Your task to perform on an android device: Open my contact list Image 0: 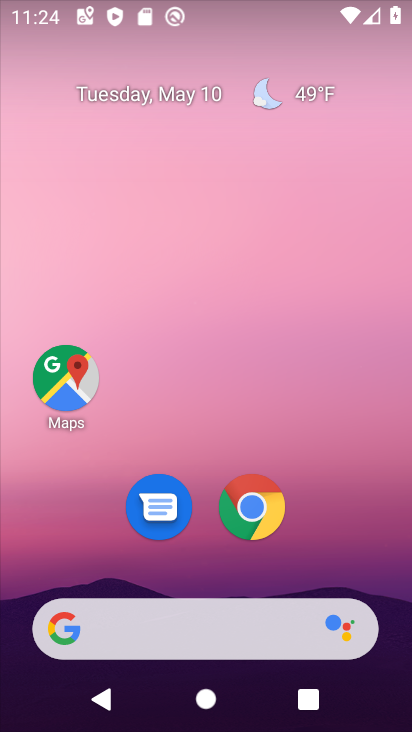
Step 0: drag from (215, 561) to (207, 30)
Your task to perform on an android device: Open my contact list Image 1: 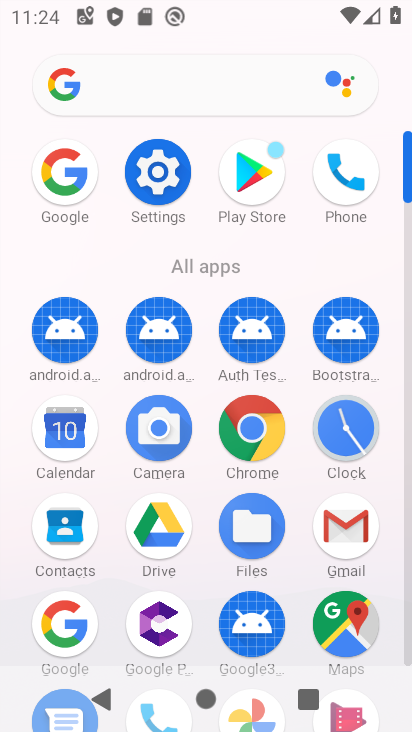
Step 1: click (67, 524)
Your task to perform on an android device: Open my contact list Image 2: 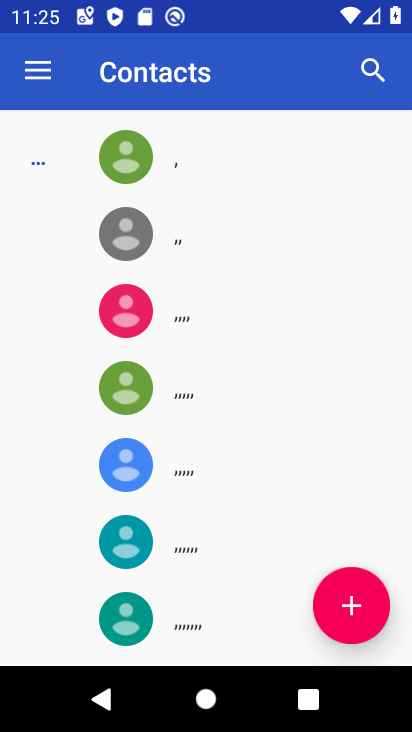
Step 2: task complete